Your task to perform on an android device: open app "Google Photos" (install if not already installed) Image 0: 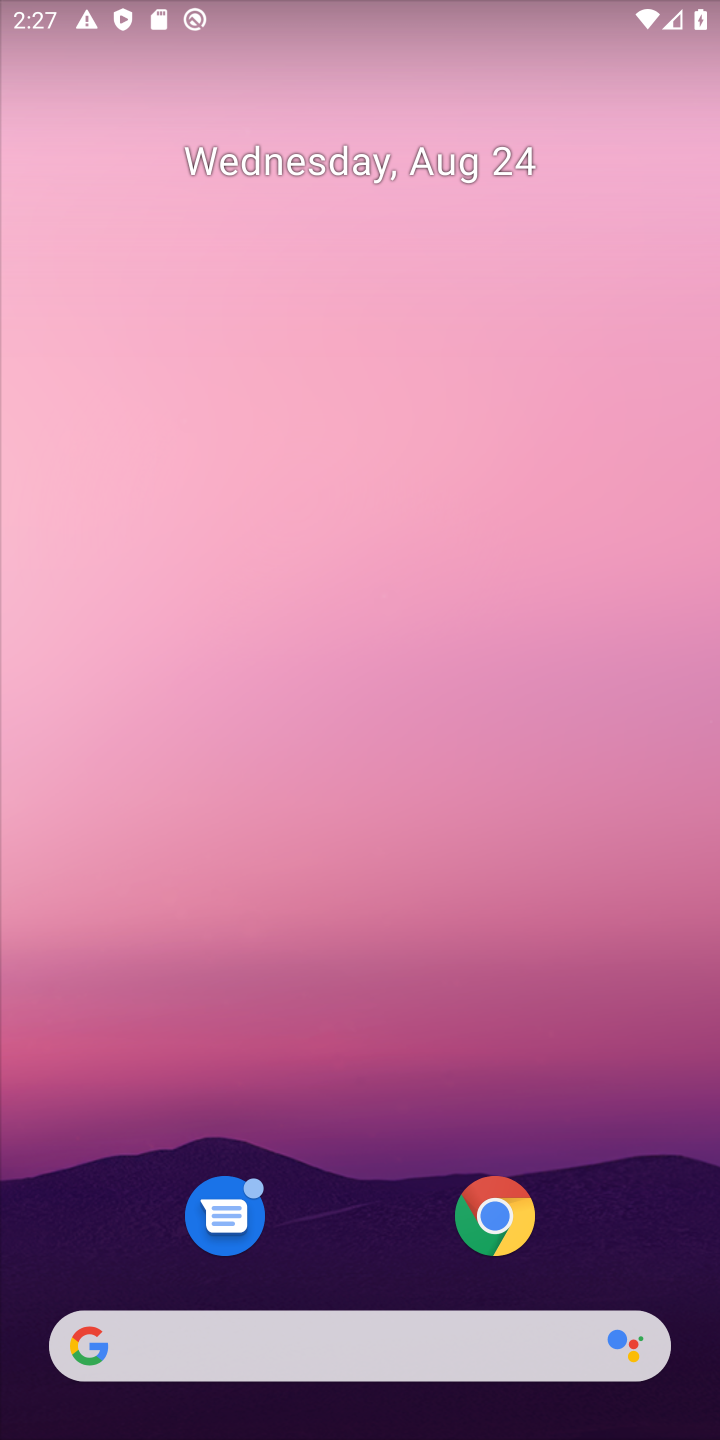
Step 0: drag from (621, 1234) to (601, 102)
Your task to perform on an android device: open app "Google Photos" (install if not already installed) Image 1: 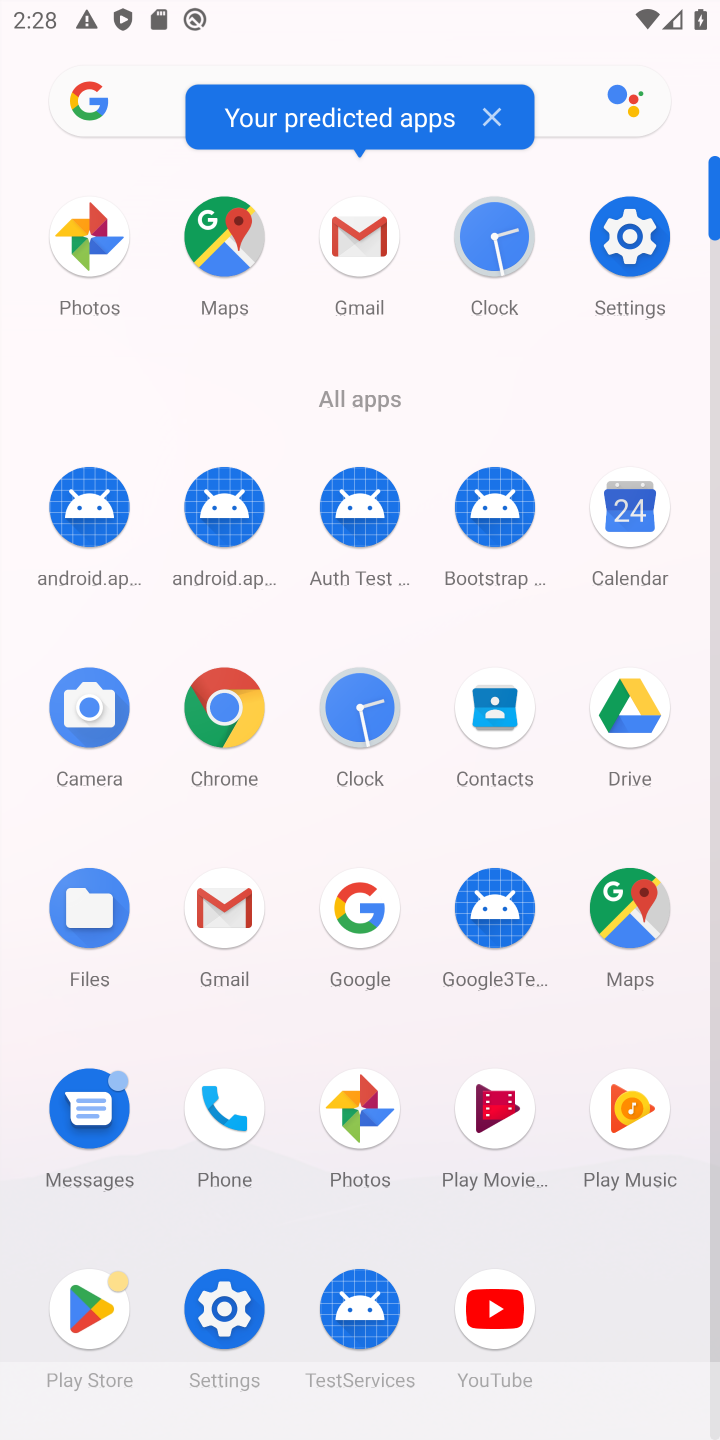
Step 1: drag from (617, 1311) to (640, 318)
Your task to perform on an android device: open app "Google Photos" (install if not already installed) Image 2: 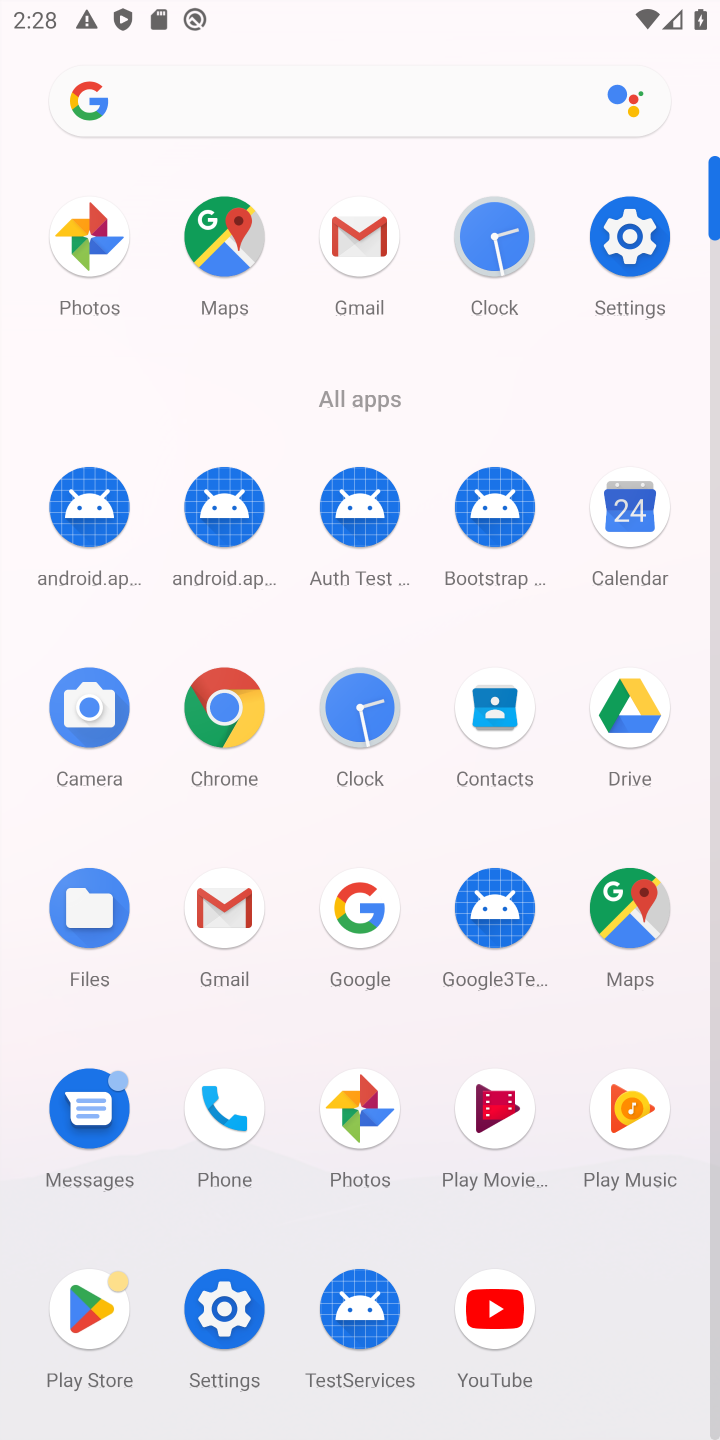
Step 2: click (88, 1306)
Your task to perform on an android device: open app "Google Photos" (install if not already installed) Image 3: 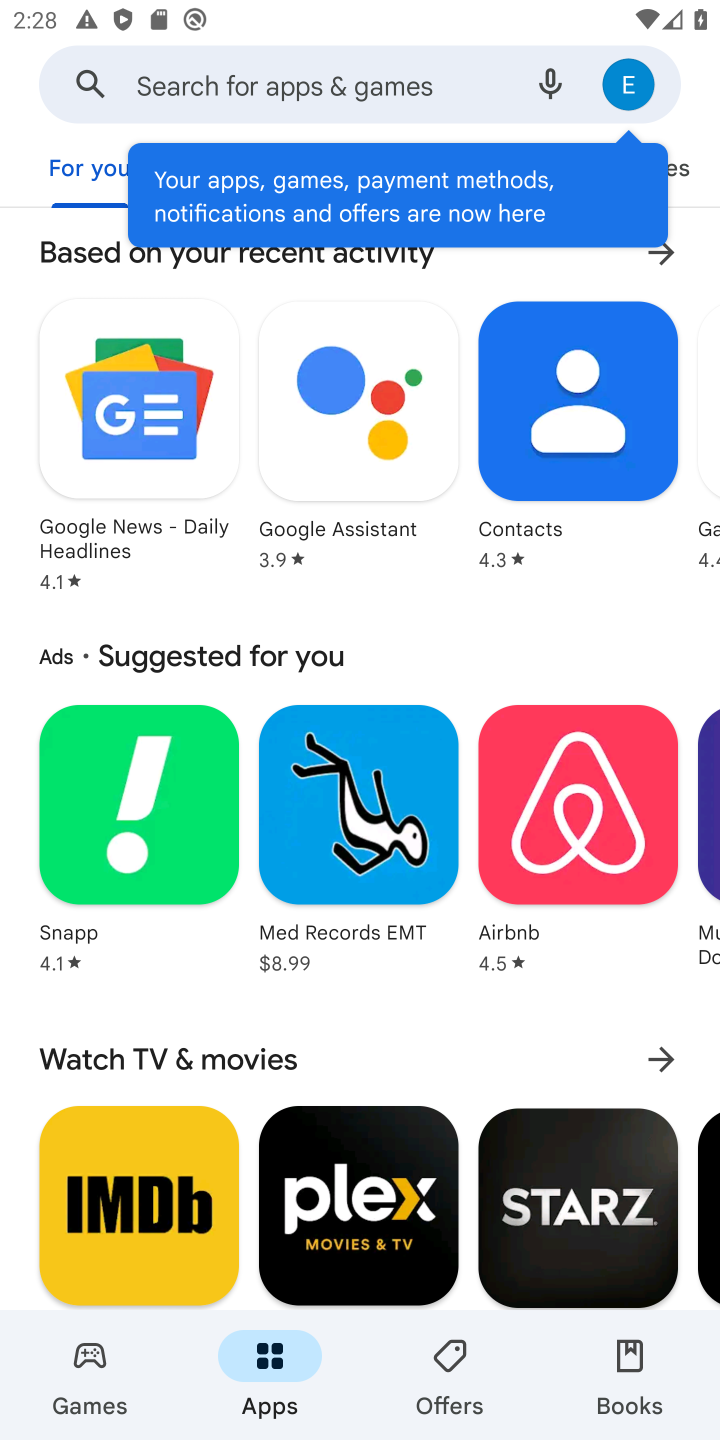
Step 3: click (334, 76)
Your task to perform on an android device: open app "Google Photos" (install if not already installed) Image 4: 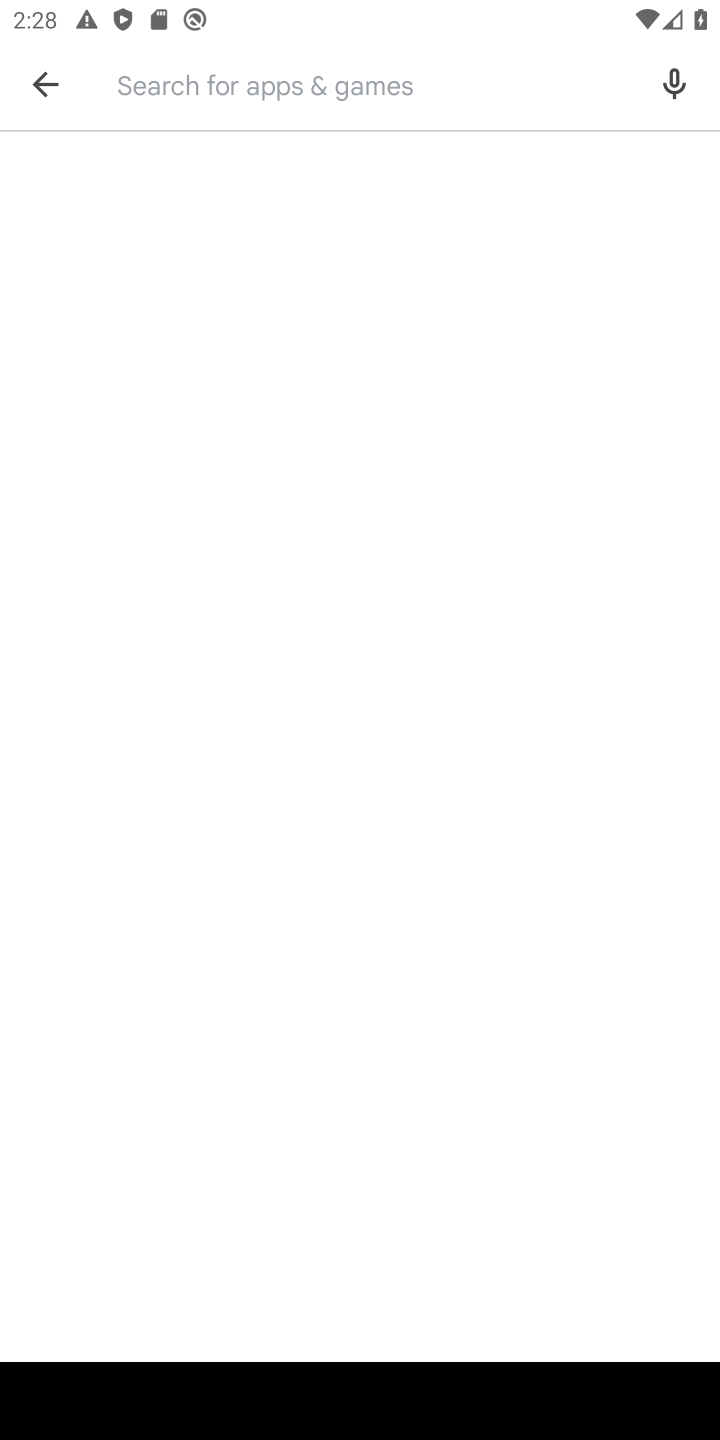
Step 4: press enter
Your task to perform on an android device: open app "Google Photos" (install if not already installed) Image 5: 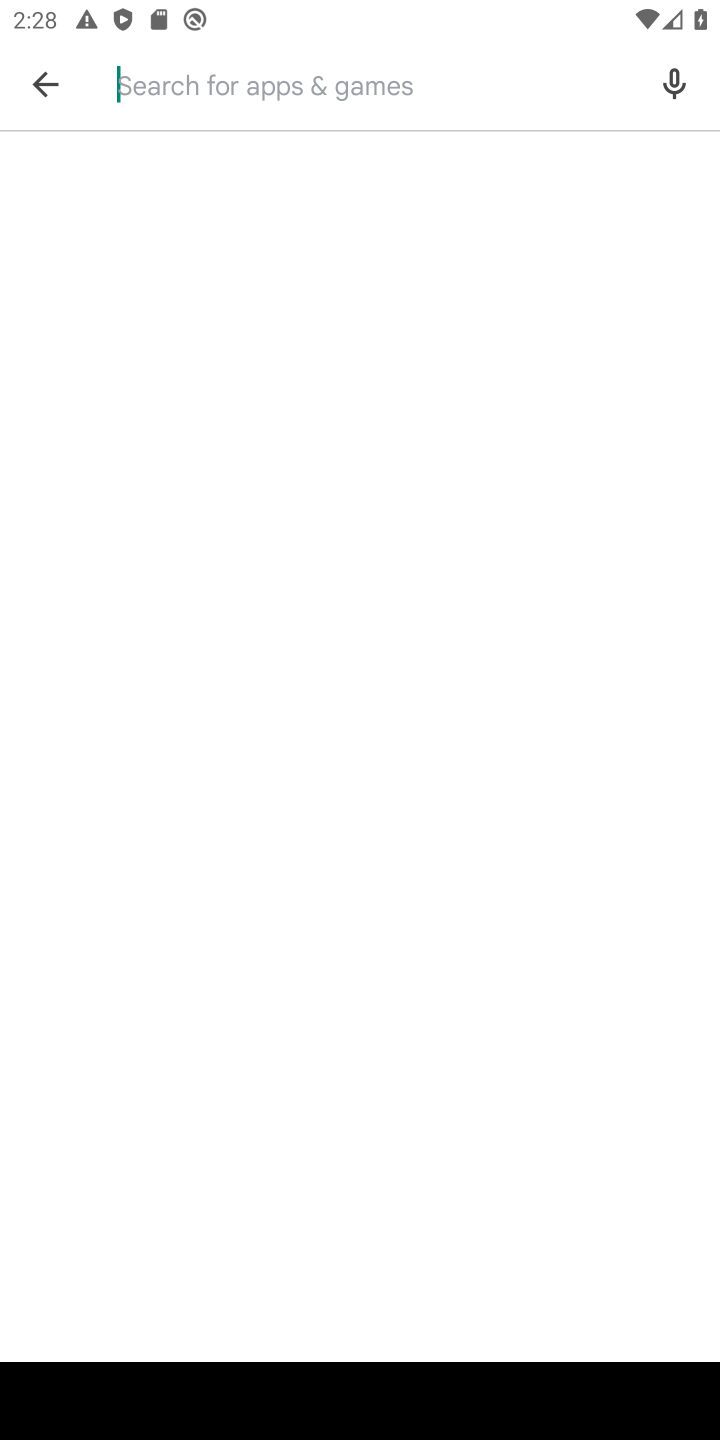
Step 5: type "Google Photos"
Your task to perform on an android device: open app "Google Photos" (install if not already installed) Image 6: 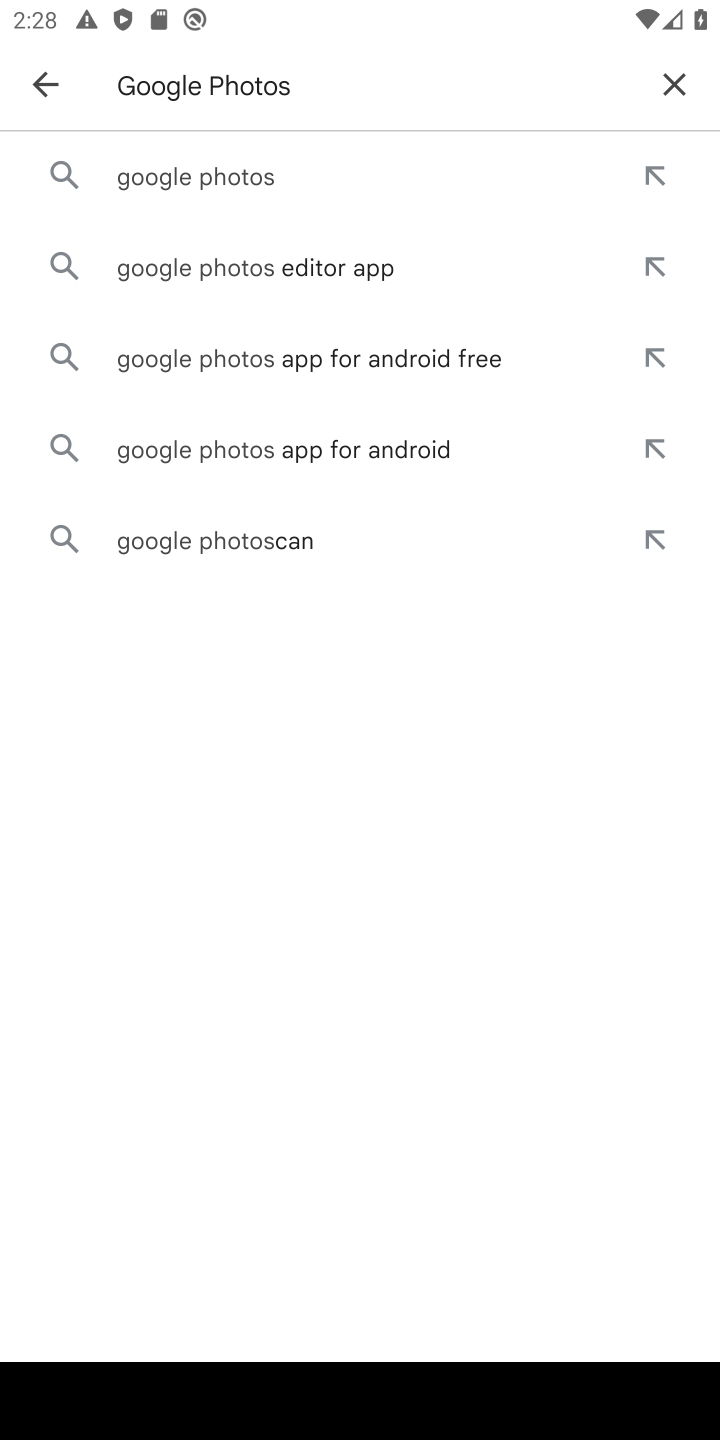
Step 6: click (332, 189)
Your task to perform on an android device: open app "Google Photos" (install if not already installed) Image 7: 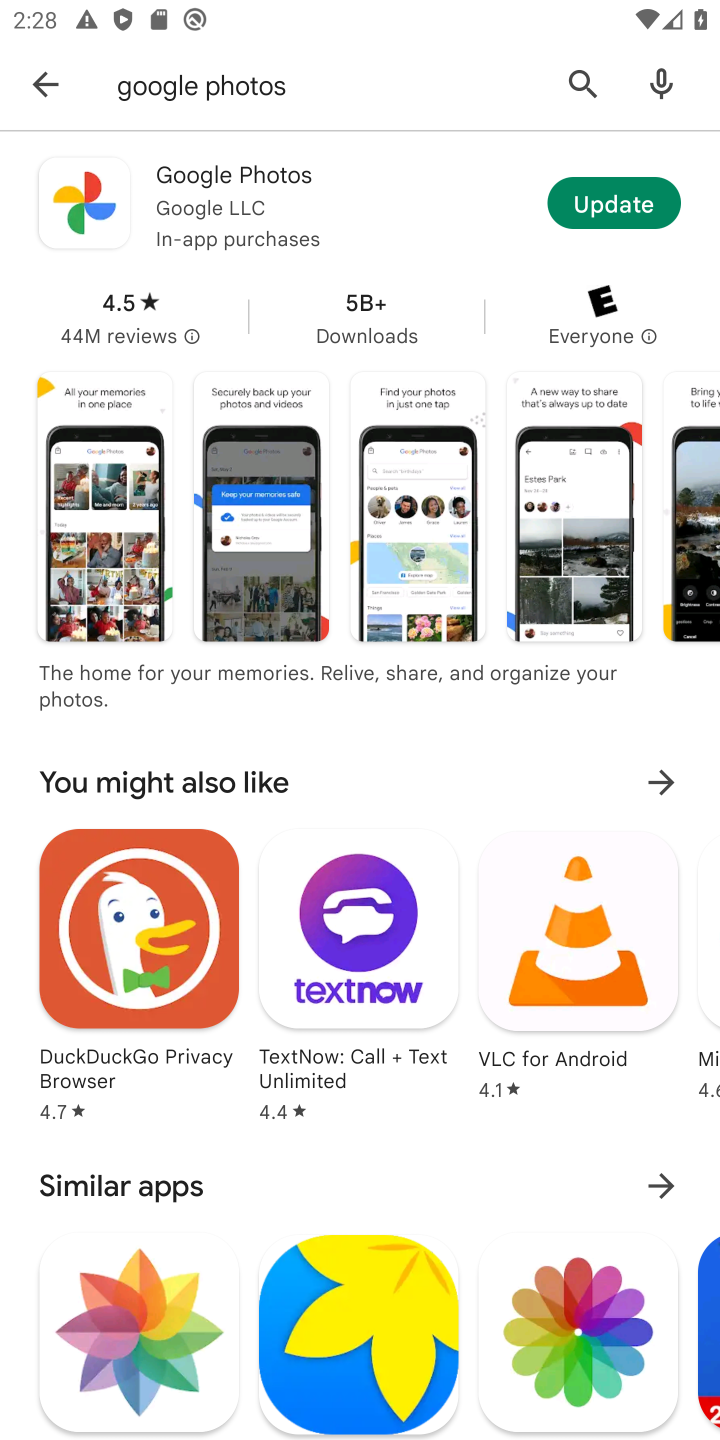
Step 7: click (628, 204)
Your task to perform on an android device: open app "Google Photos" (install if not already installed) Image 8: 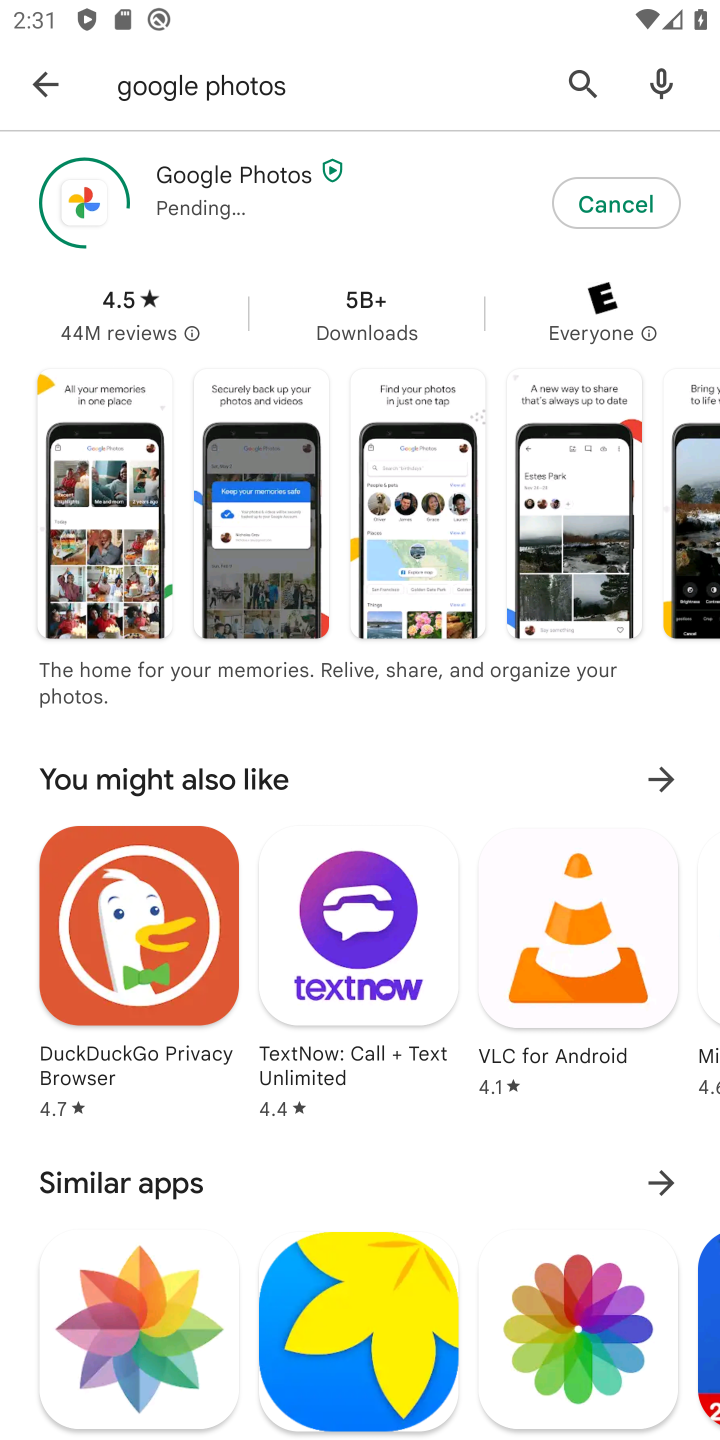
Step 8: task complete